Your task to perform on an android device: Find coffee shops on Maps Image 0: 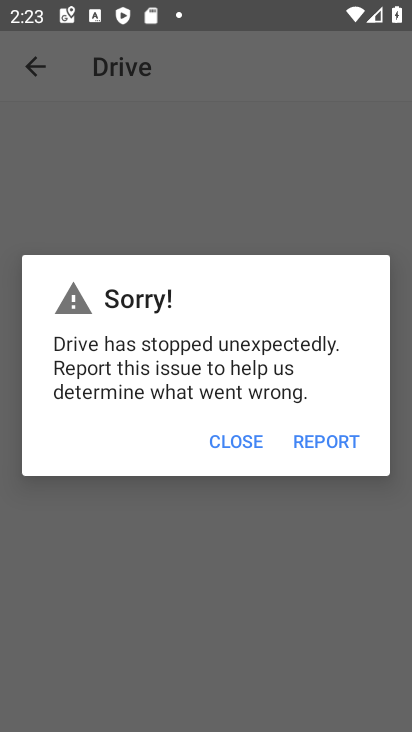
Step 0: press home button
Your task to perform on an android device: Find coffee shops on Maps Image 1: 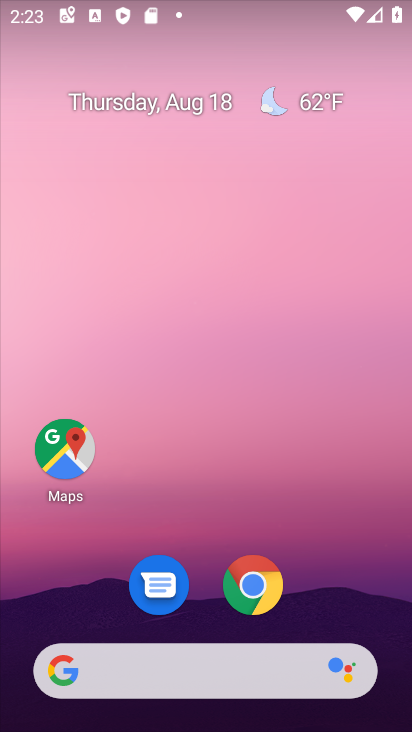
Step 1: click (68, 457)
Your task to perform on an android device: Find coffee shops on Maps Image 2: 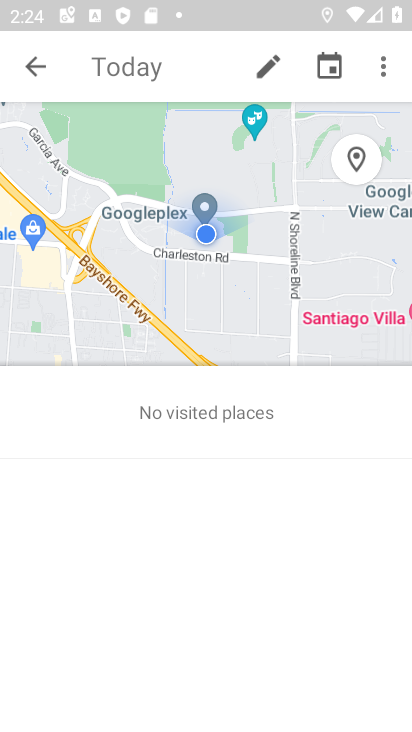
Step 2: click (37, 58)
Your task to perform on an android device: Find coffee shops on Maps Image 3: 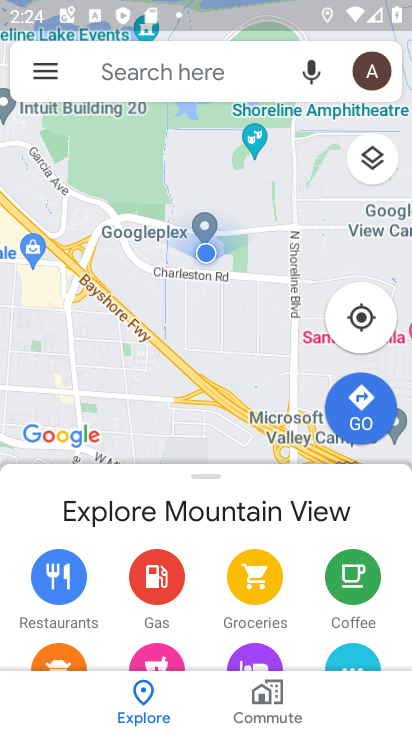
Step 3: click (207, 66)
Your task to perform on an android device: Find coffee shops on Maps Image 4: 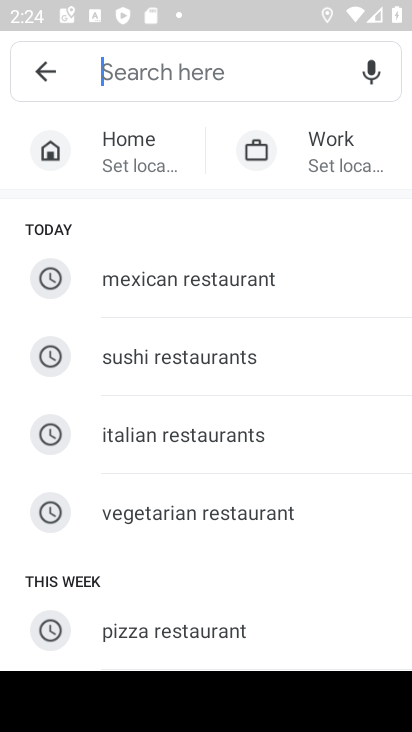
Step 4: drag from (187, 538) to (191, 492)
Your task to perform on an android device: Find coffee shops on Maps Image 5: 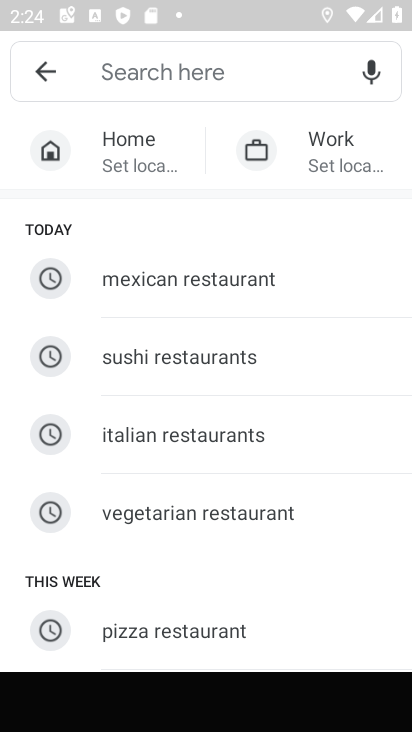
Step 5: drag from (196, 450) to (197, 132)
Your task to perform on an android device: Find coffee shops on Maps Image 6: 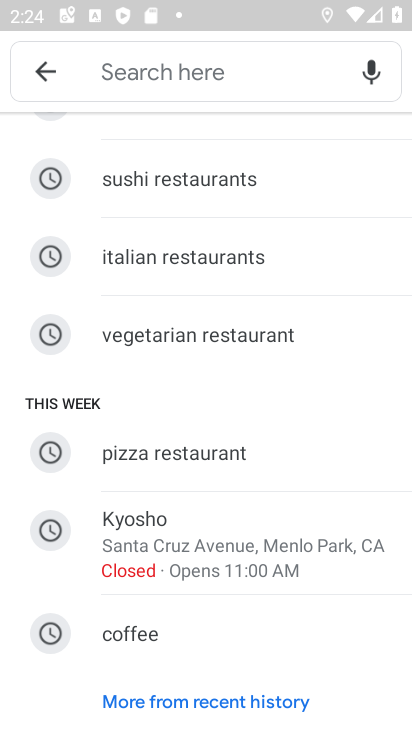
Step 6: click (141, 626)
Your task to perform on an android device: Find coffee shops on Maps Image 7: 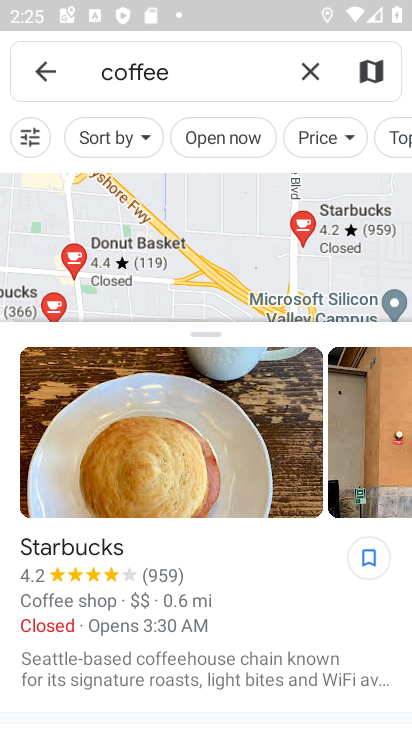
Step 7: task complete